Your task to perform on an android device: empty trash in the gmail app Image 0: 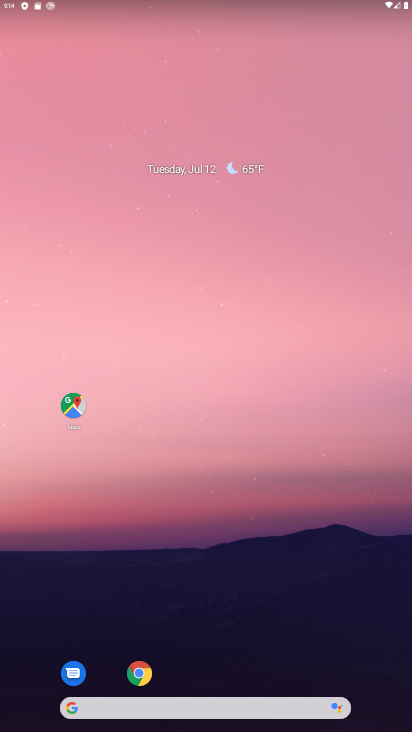
Step 0: drag from (347, 655) to (340, 175)
Your task to perform on an android device: empty trash in the gmail app Image 1: 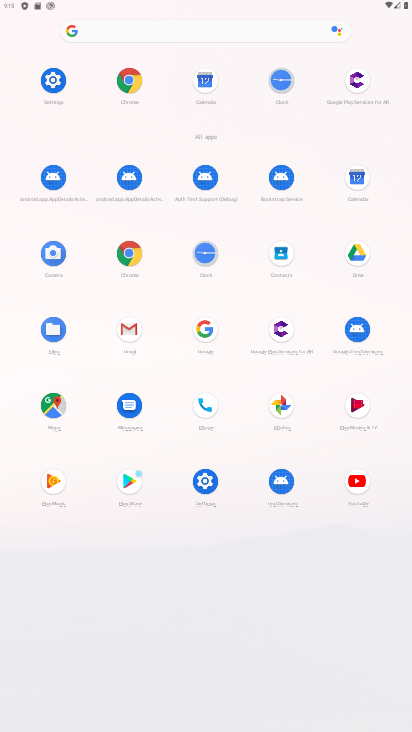
Step 1: click (126, 325)
Your task to perform on an android device: empty trash in the gmail app Image 2: 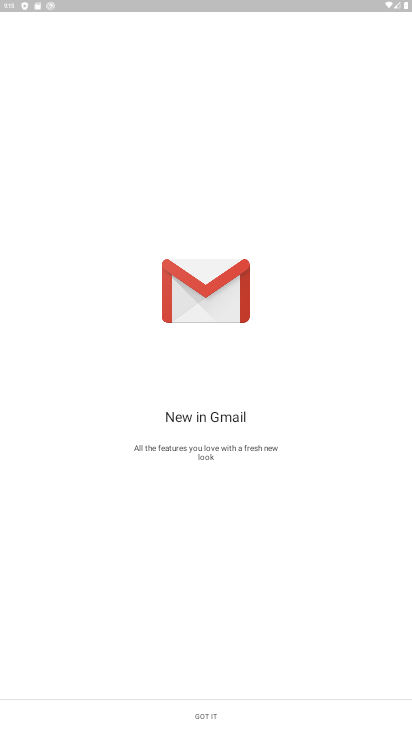
Step 2: click (212, 713)
Your task to perform on an android device: empty trash in the gmail app Image 3: 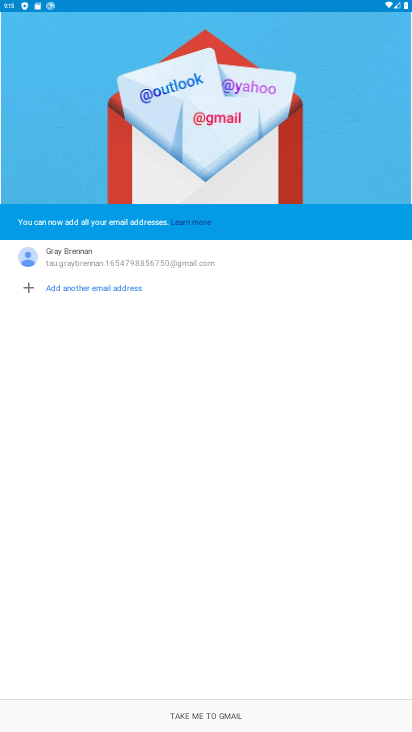
Step 3: click (209, 720)
Your task to perform on an android device: empty trash in the gmail app Image 4: 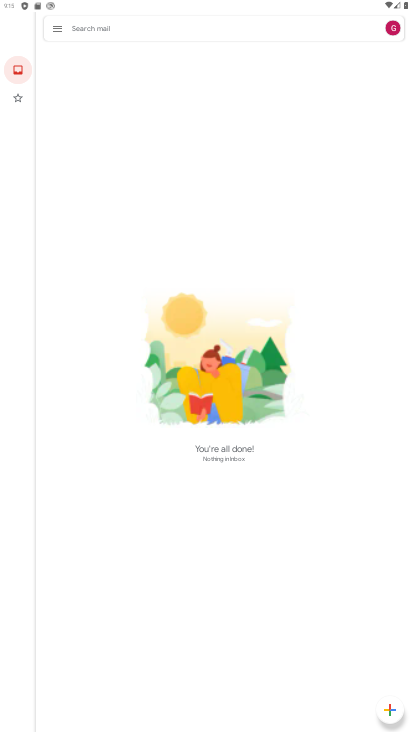
Step 4: click (61, 26)
Your task to perform on an android device: empty trash in the gmail app Image 5: 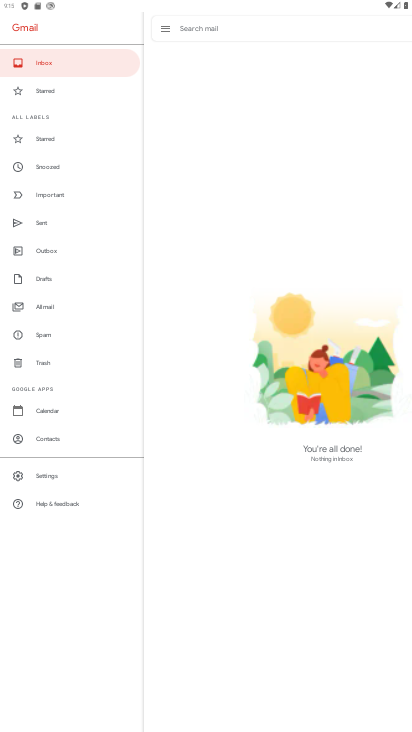
Step 5: click (55, 363)
Your task to perform on an android device: empty trash in the gmail app Image 6: 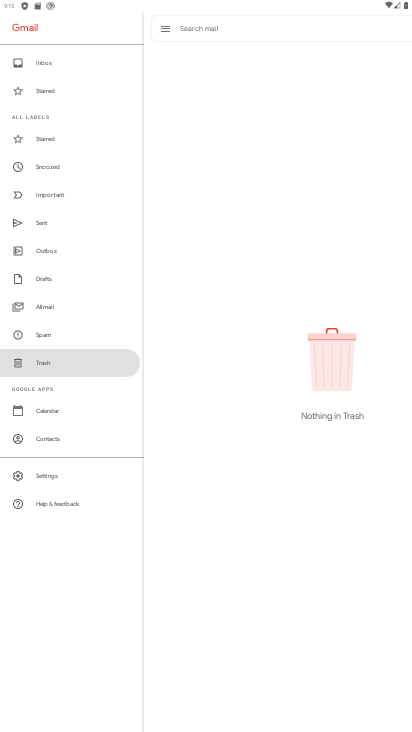
Step 6: task complete